Your task to perform on an android device: empty trash in the gmail app Image 0: 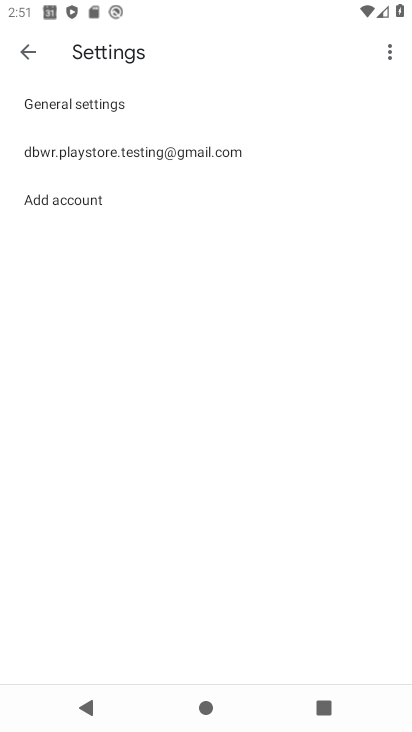
Step 0: press back button
Your task to perform on an android device: empty trash in the gmail app Image 1: 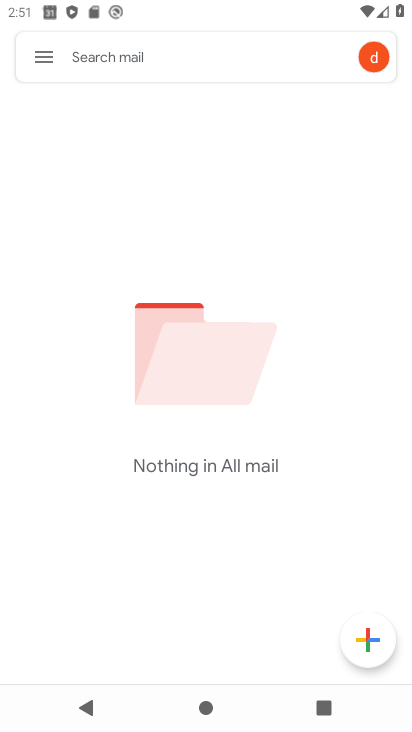
Step 1: click (18, 54)
Your task to perform on an android device: empty trash in the gmail app Image 2: 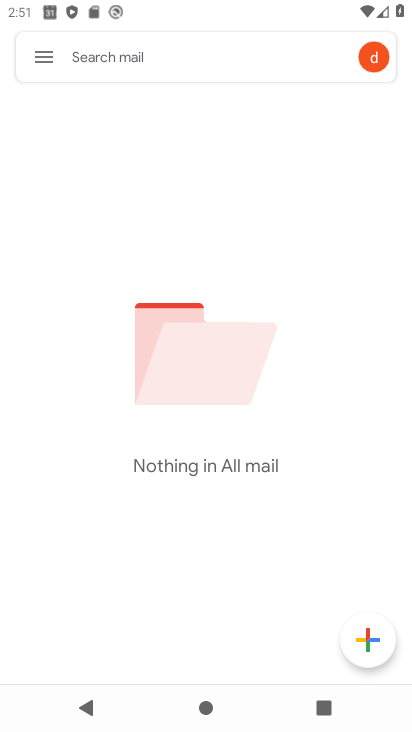
Step 2: click (38, 55)
Your task to perform on an android device: empty trash in the gmail app Image 3: 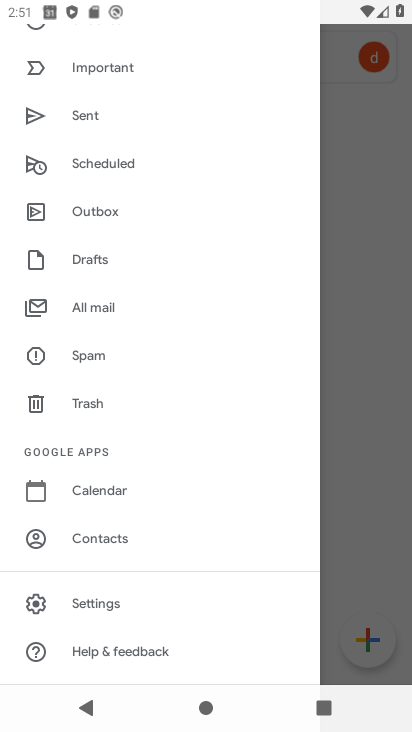
Step 3: click (94, 404)
Your task to perform on an android device: empty trash in the gmail app Image 4: 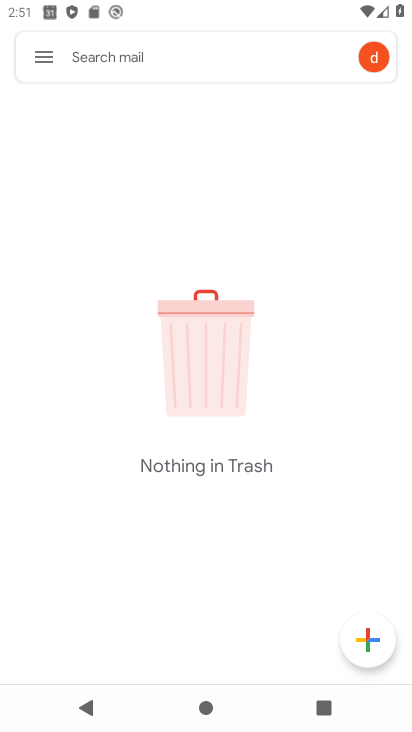
Step 4: task complete